Your task to perform on an android device: Open Maps and search for coffee Image 0: 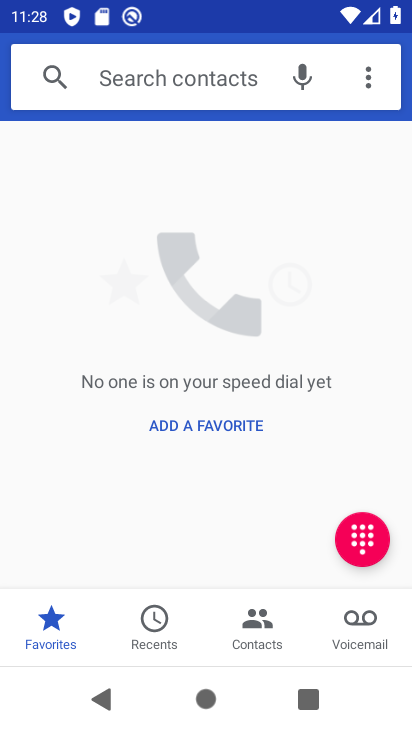
Step 0: press home button
Your task to perform on an android device: Open Maps and search for coffee Image 1: 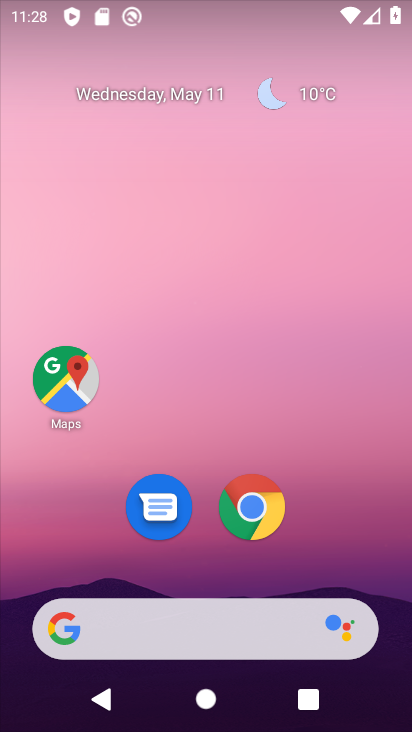
Step 1: click (268, 390)
Your task to perform on an android device: Open Maps and search for coffee Image 2: 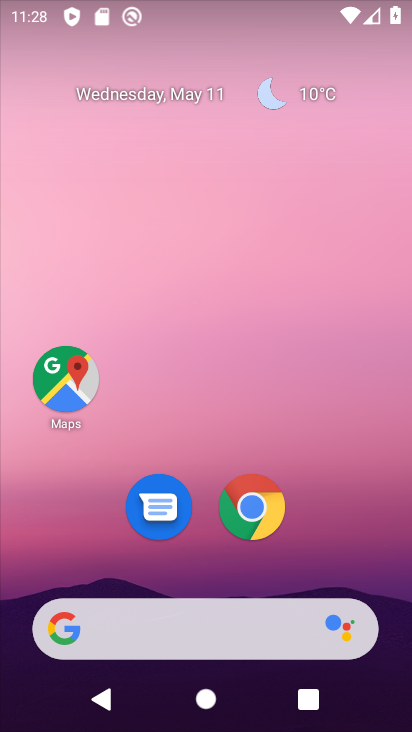
Step 2: click (84, 357)
Your task to perform on an android device: Open Maps and search for coffee Image 3: 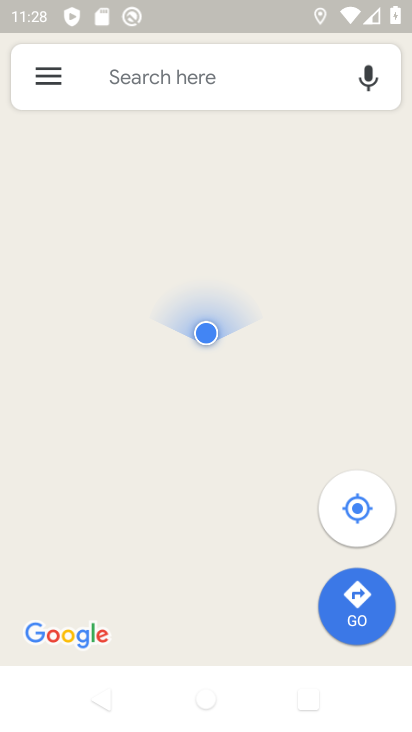
Step 3: click (189, 93)
Your task to perform on an android device: Open Maps and search for coffee Image 4: 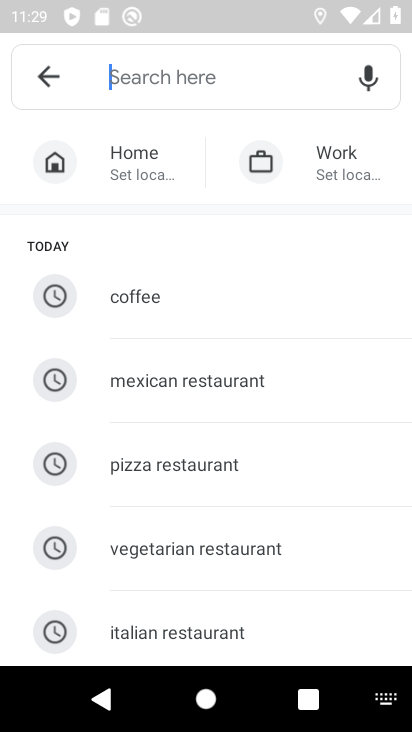
Step 4: click (195, 292)
Your task to perform on an android device: Open Maps and search for coffee Image 5: 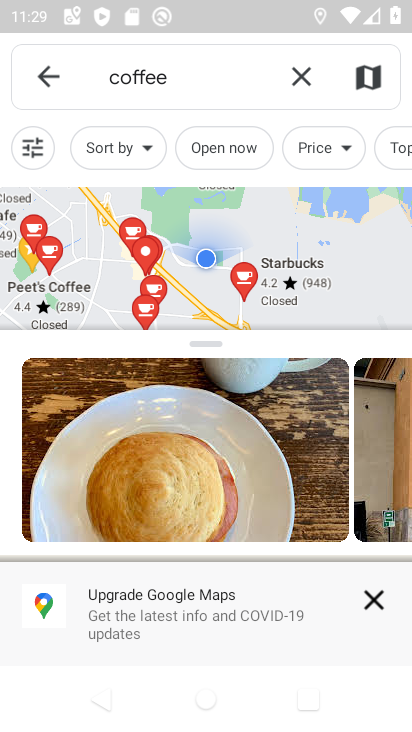
Step 5: task complete